Your task to perform on an android device: Clear the cart on walmart. Add "amazon basics triple a" to the cart on walmart, then select checkout. Image 0: 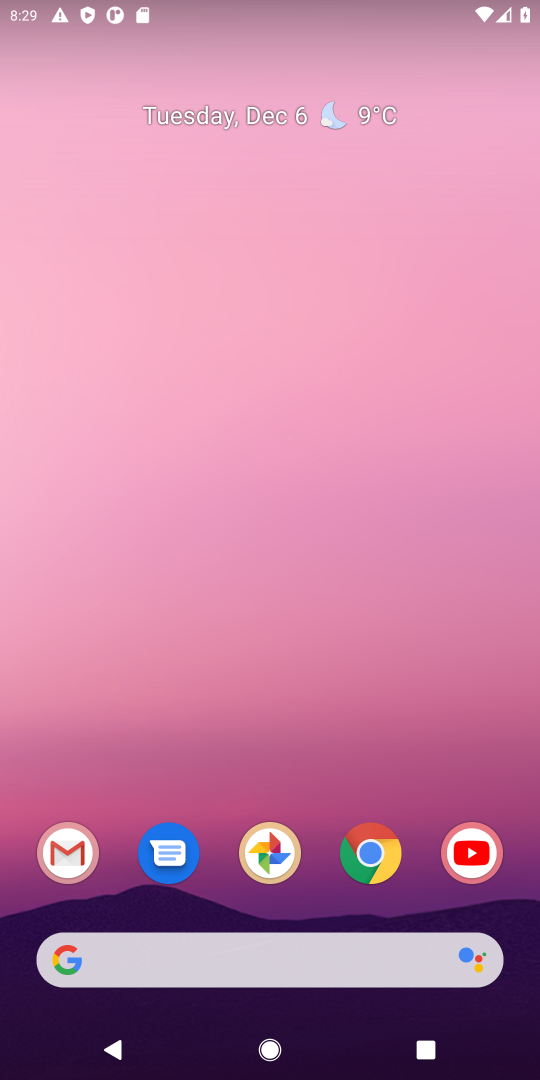
Step 0: task complete